Your task to perform on an android device: check the backup settings in the google photos Image 0: 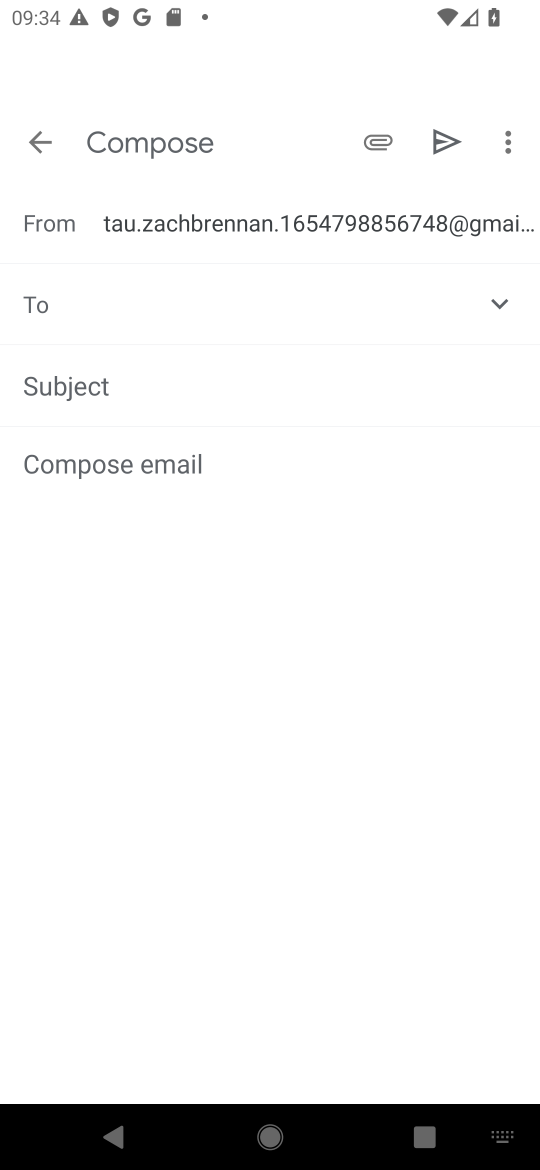
Step 0: press home button
Your task to perform on an android device: check the backup settings in the google photos Image 1: 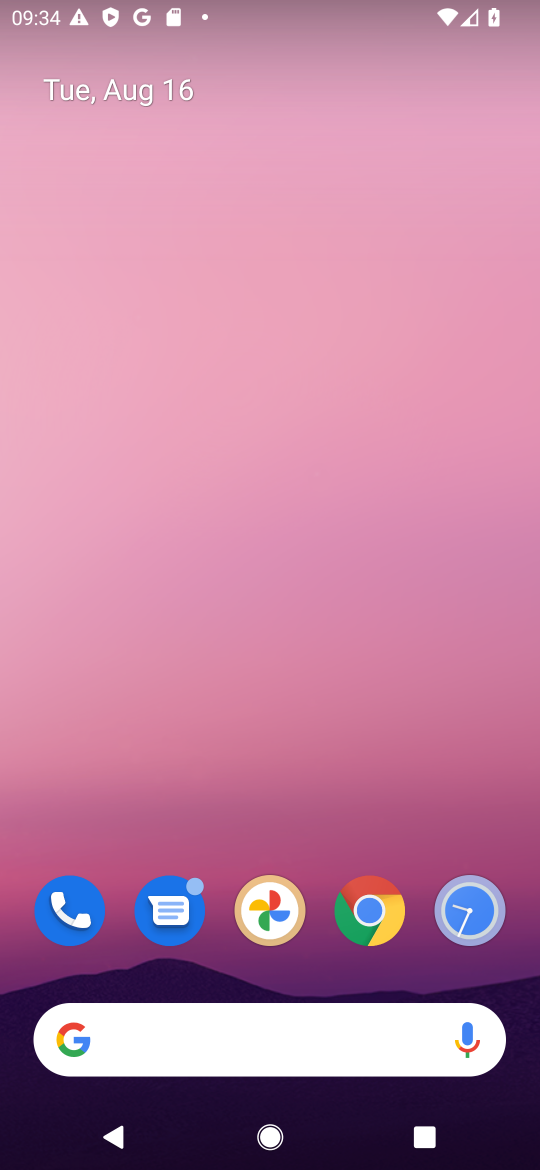
Step 1: click (265, 897)
Your task to perform on an android device: check the backup settings in the google photos Image 2: 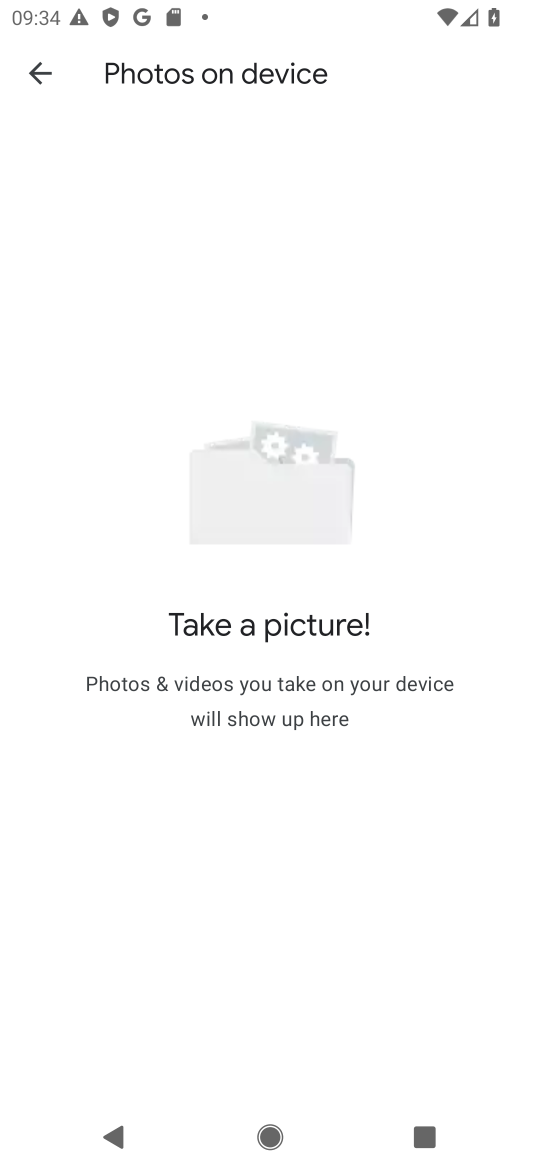
Step 2: click (35, 49)
Your task to perform on an android device: check the backup settings in the google photos Image 3: 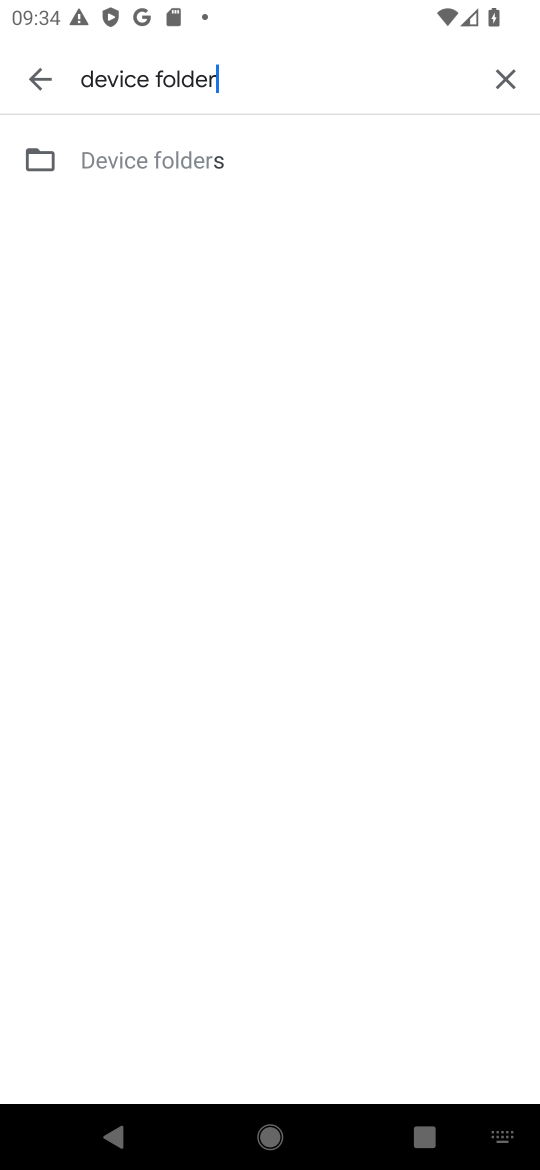
Step 3: click (37, 74)
Your task to perform on an android device: check the backup settings in the google photos Image 4: 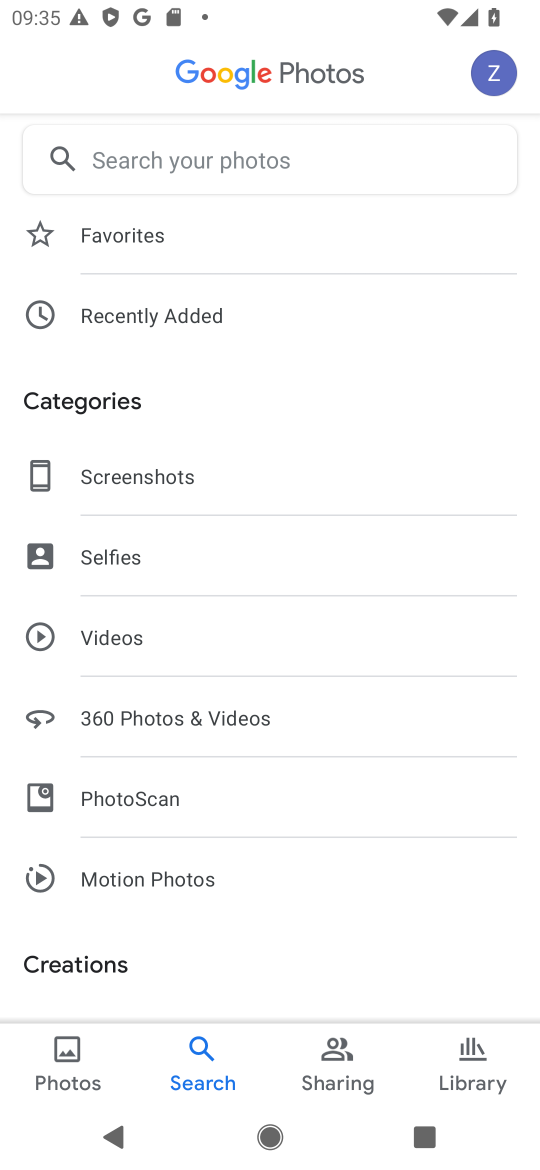
Step 4: click (504, 78)
Your task to perform on an android device: check the backup settings in the google photos Image 5: 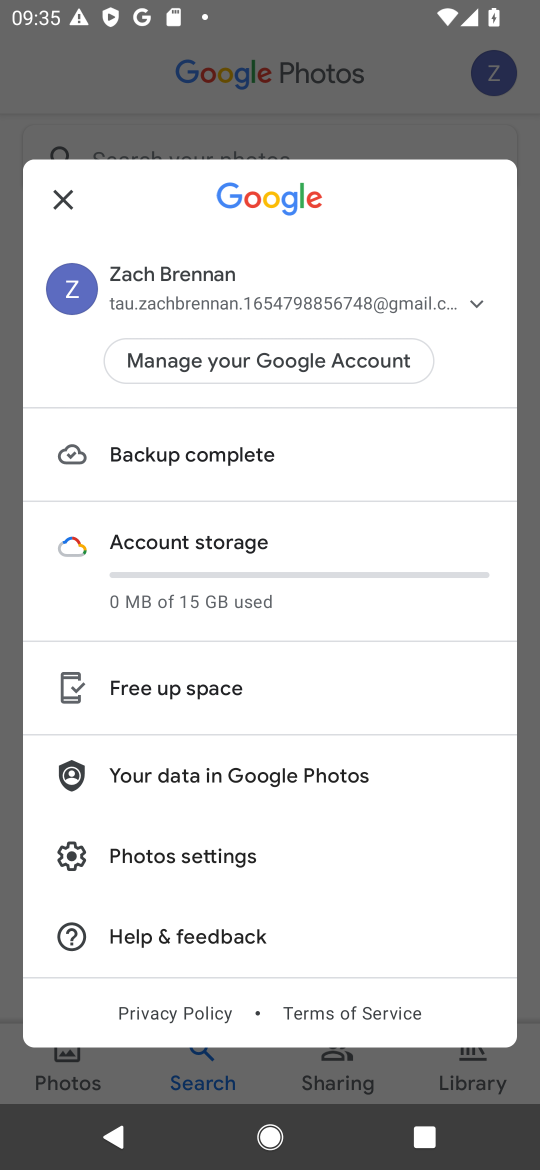
Step 5: click (229, 851)
Your task to perform on an android device: check the backup settings in the google photos Image 6: 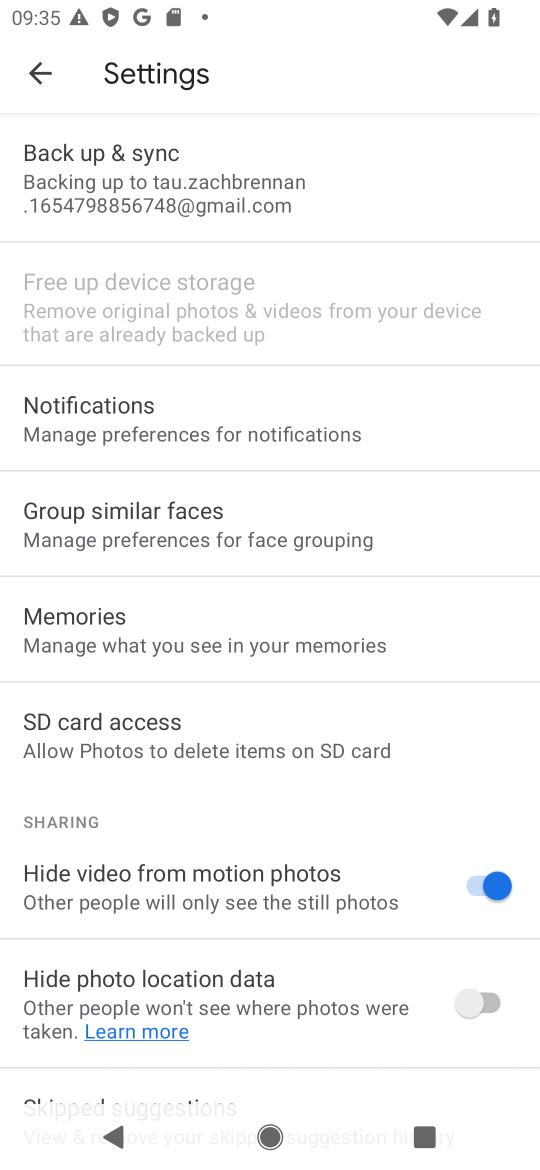
Step 6: click (193, 158)
Your task to perform on an android device: check the backup settings in the google photos Image 7: 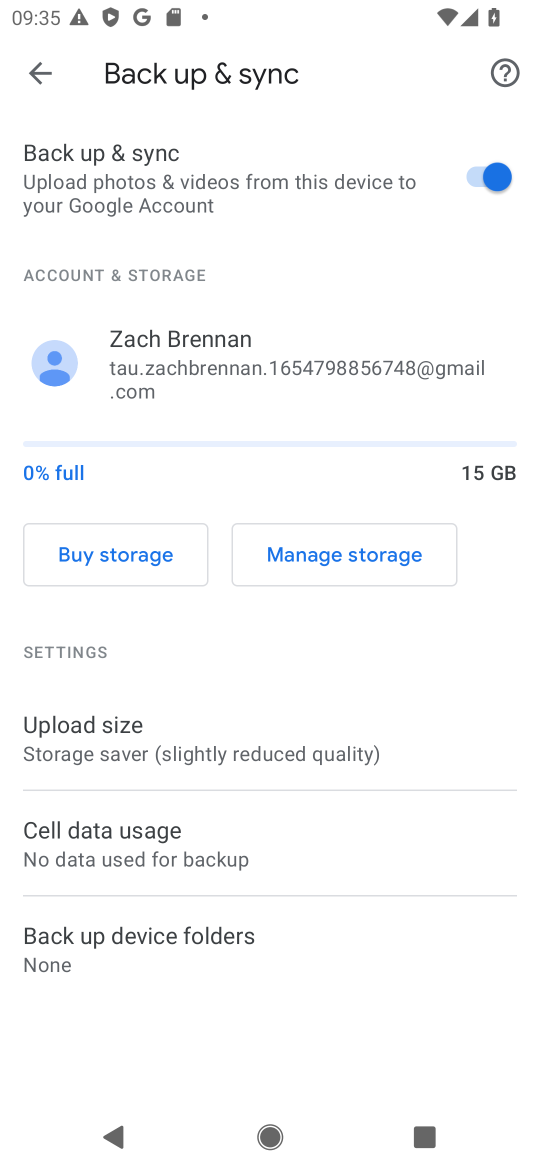
Step 7: task complete